Your task to perform on an android device: star an email in the gmail app Image 0: 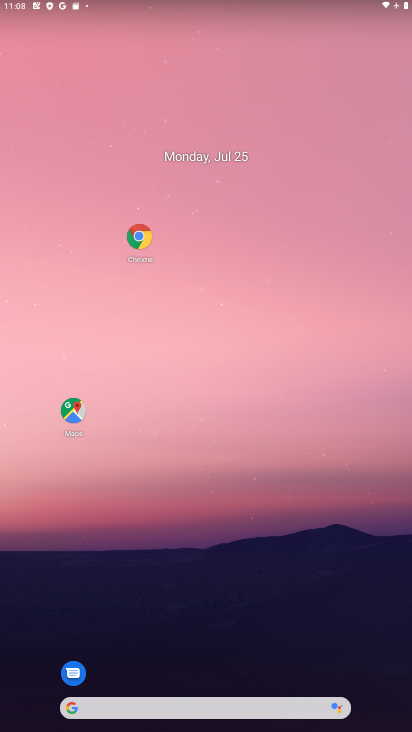
Step 0: drag from (256, 680) to (234, 120)
Your task to perform on an android device: star an email in the gmail app Image 1: 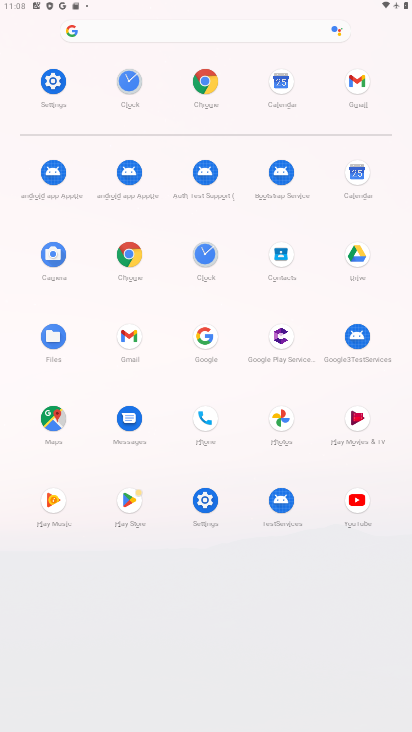
Step 1: click (348, 92)
Your task to perform on an android device: star an email in the gmail app Image 2: 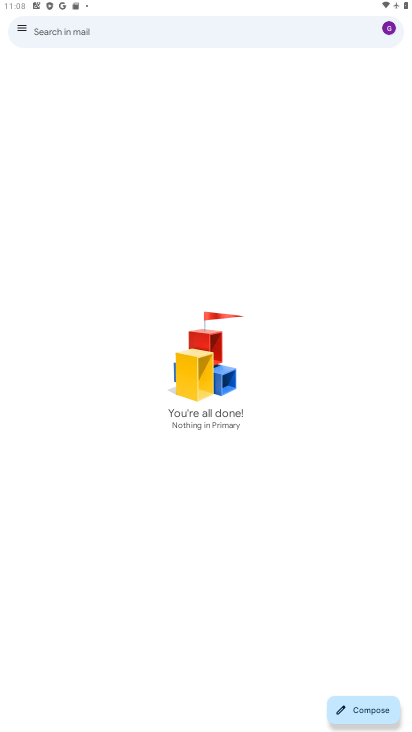
Step 2: task complete